Your task to perform on an android device: toggle translation in the chrome app Image 0: 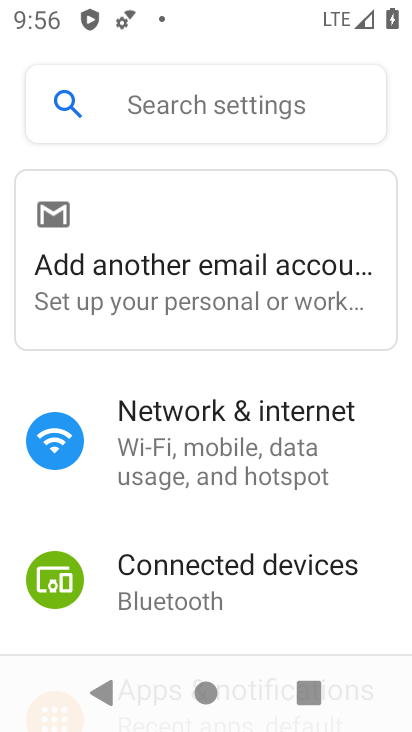
Step 0: press home button
Your task to perform on an android device: toggle translation in the chrome app Image 1: 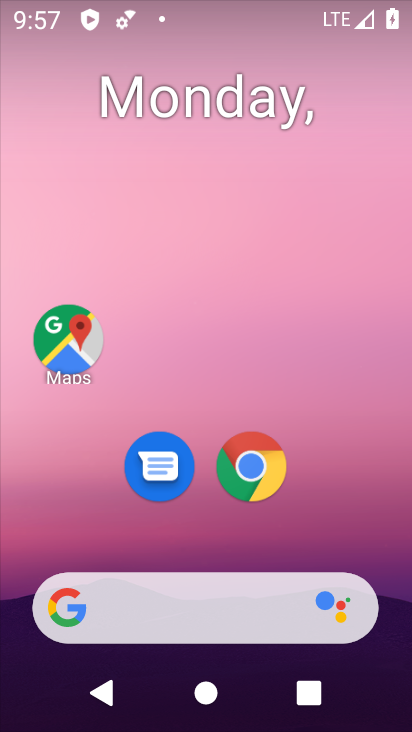
Step 1: click (257, 464)
Your task to perform on an android device: toggle translation in the chrome app Image 2: 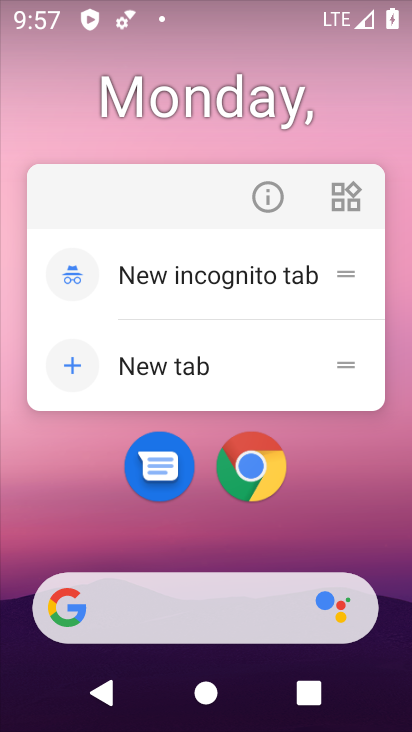
Step 2: click (257, 464)
Your task to perform on an android device: toggle translation in the chrome app Image 3: 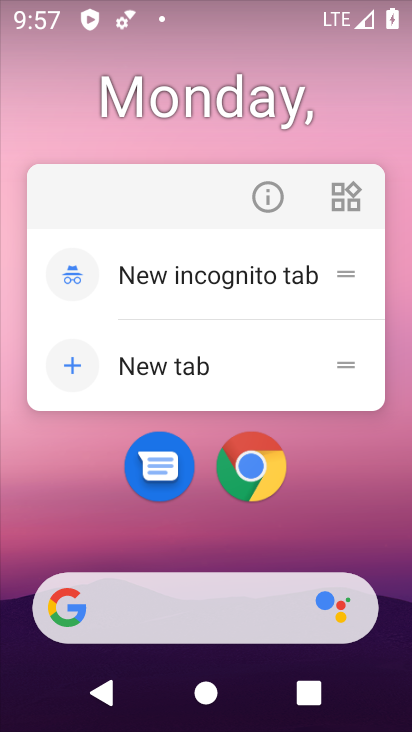
Step 3: click (257, 464)
Your task to perform on an android device: toggle translation in the chrome app Image 4: 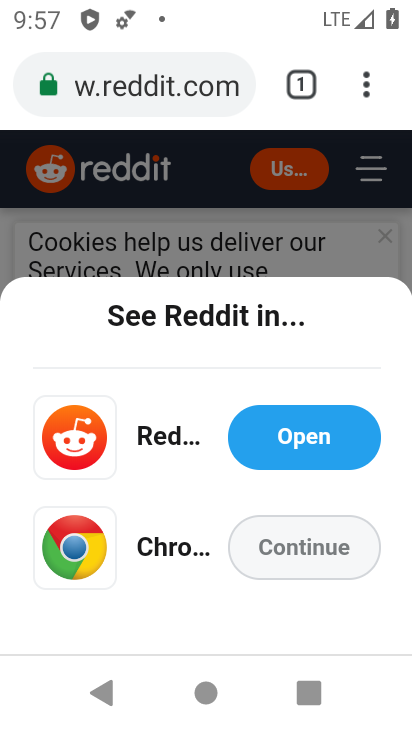
Step 4: drag from (390, 64) to (45, 501)
Your task to perform on an android device: toggle translation in the chrome app Image 5: 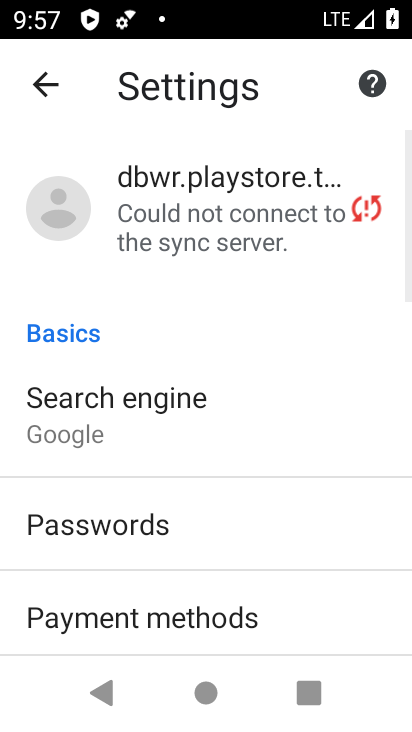
Step 5: drag from (159, 550) to (320, 21)
Your task to perform on an android device: toggle translation in the chrome app Image 6: 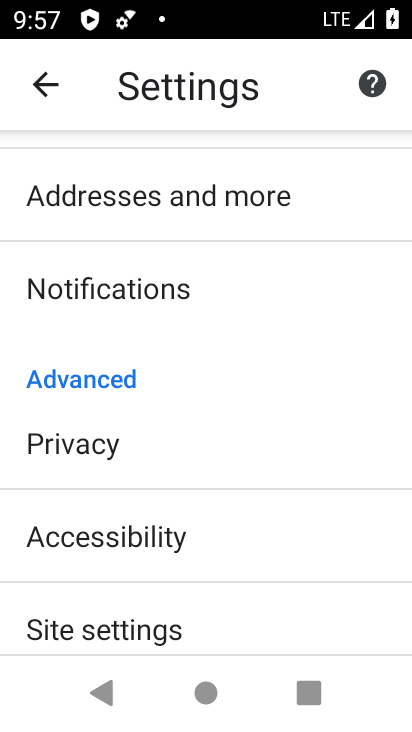
Step 6: drag from (204, 513) to (202, 72)
Your task to perform on an android device: toggle translation in the chrome app Image 7: 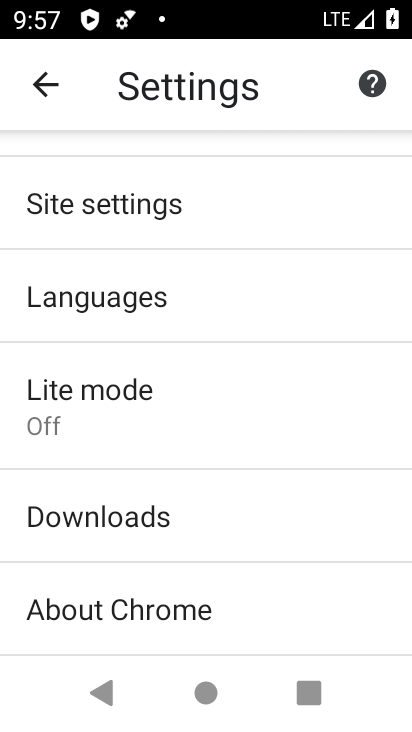
Step 7: click (116, 290)
Your task to perform on an android device: toggle translation in the chrome app Image 8: 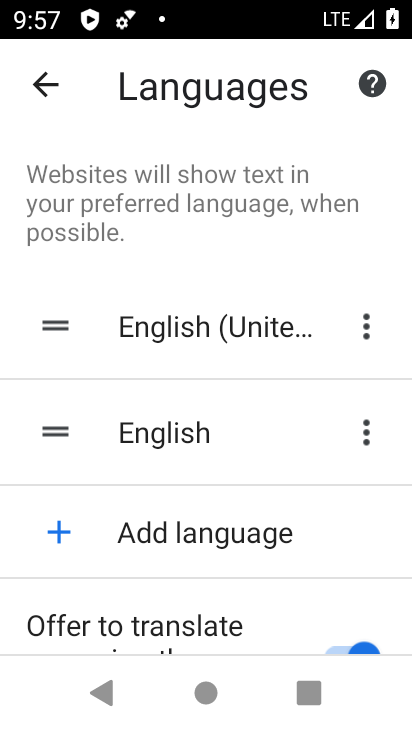
Step 8: drag from (209, 587) to (212, 105)
Your task to perform on an android device: toggle translation in the chrome app Image 9: 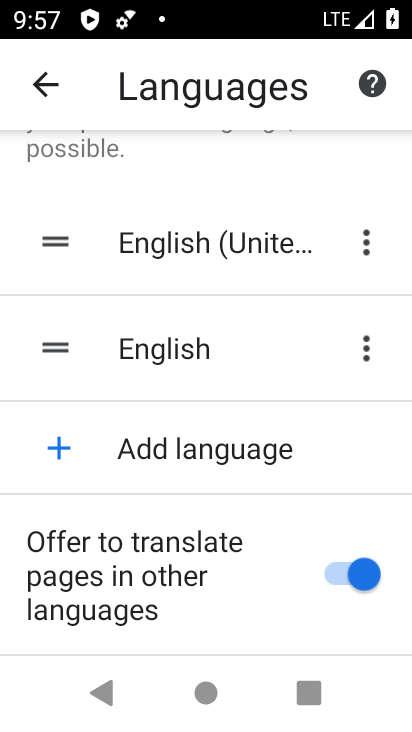
Step 9: click (194, 600)
Your task to perform on an android device: toggle translation in the chrome app Image 10: 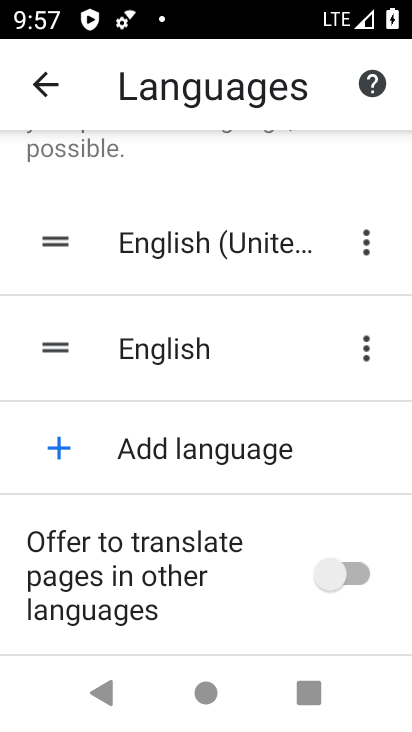
Step 10: task complete